Your task to perform on an android device: turn pop-ups on in chrome Image 0: 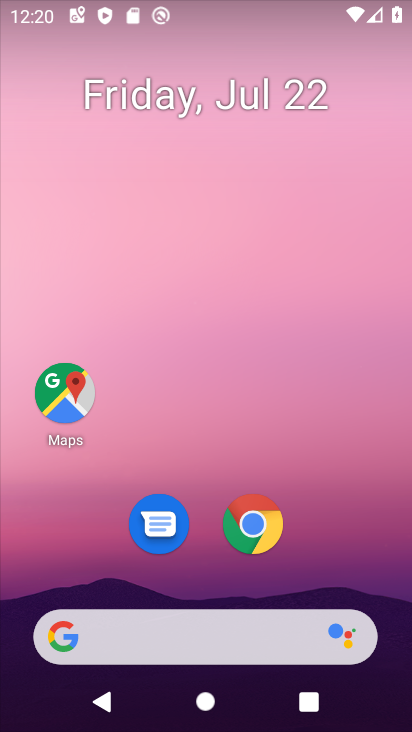
Step 0: click (266, 530)
Your task to perform on an android device: turn pop-ups on in chrome Image 1: 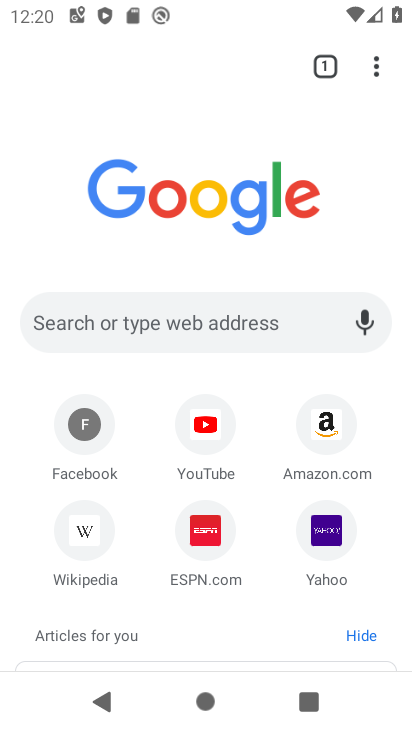
Step 1: click (376, 75)
Your task to perform on an android device: turn pop-ups on in chrome Image 2: 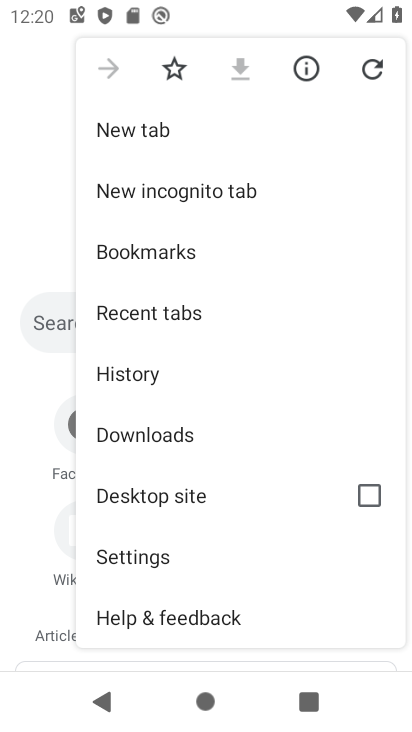
Step 2: click (167, 553)
Your task to perform on an android device: turn pop-ups on in chrome Image 3: 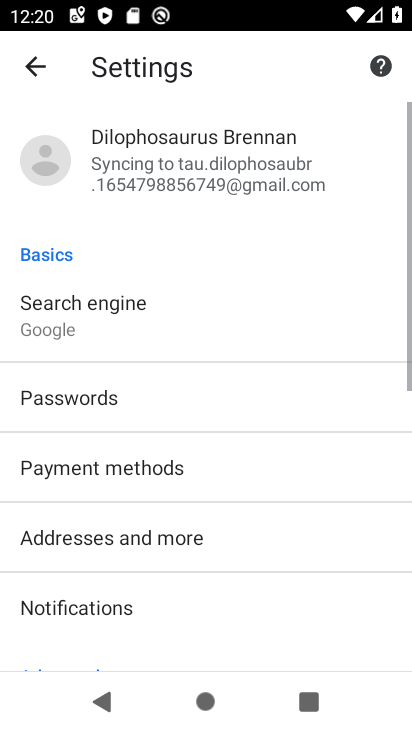
Step 3: drag from (191, 548) to (196, 207)
Your task to perform on an android device: turn pop-ups on in chrome Image 4: 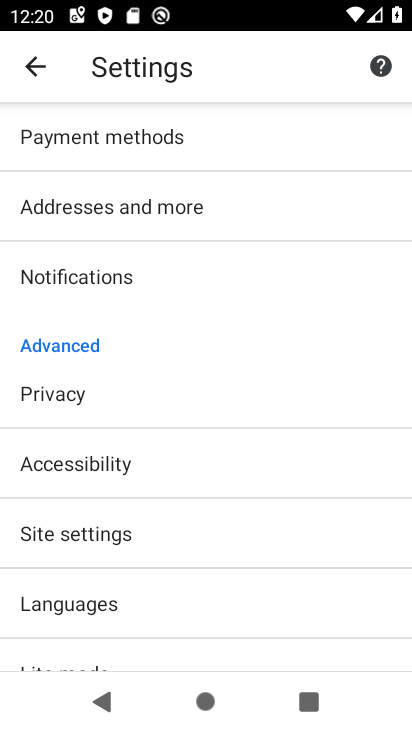
Step 4: click (89, 529)
Your task to perform on an android device: turn pop-ups on in chrome Image 5: 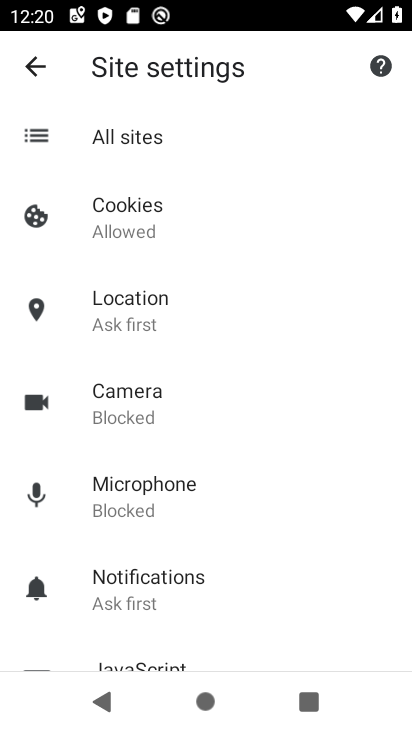
Step 5: drag from (275, 558) to (273, 103)
Your task to perform on an android device: turn pop-ups on in chrome Image 6: 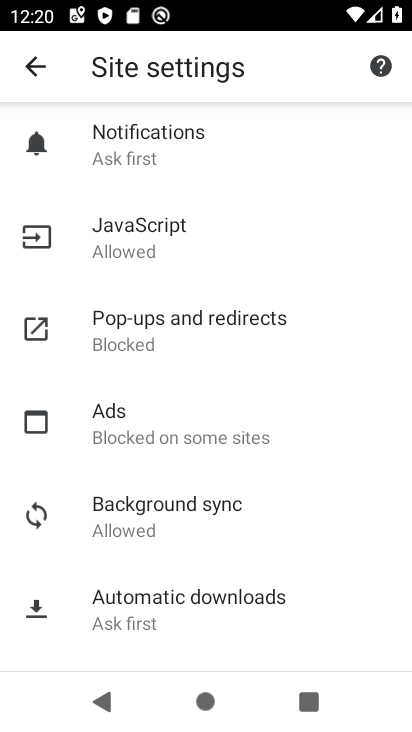
Step 6: click (211, 321)
Your task to perform on an android device: turn pop-ups on in chrome Image 7: 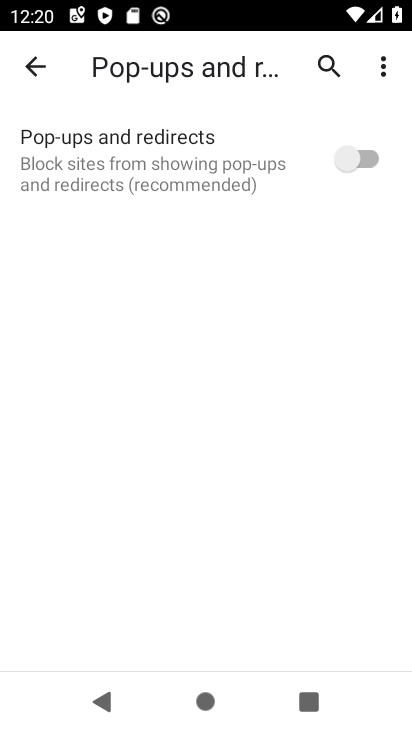
Step 7: click (365, 150)
Your task to perform on an android device: turn pop-ups on in chrome Image 8: 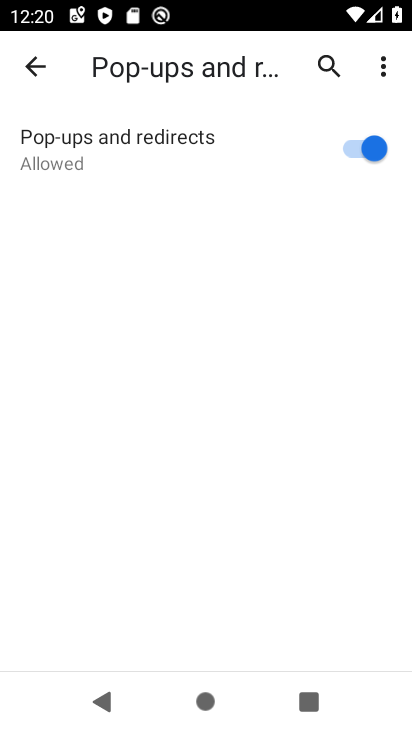
Step 8: task complete